Your task to perform on an android device: See recent photos Image 0: 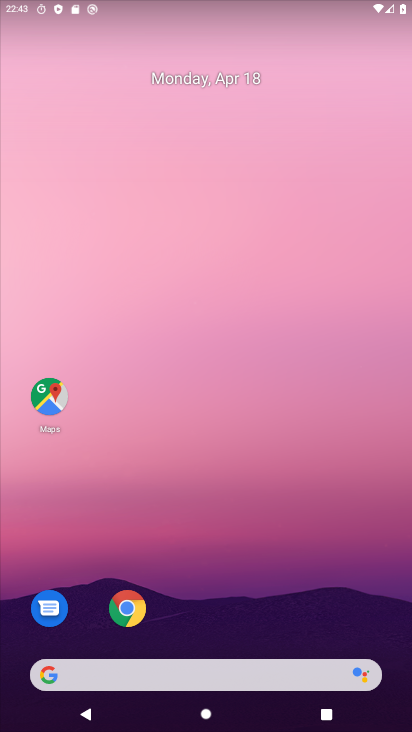
Step 0: drag from (213, 599) to (194, 166)
Your task to perform on an android device: See recent photos Image 1: 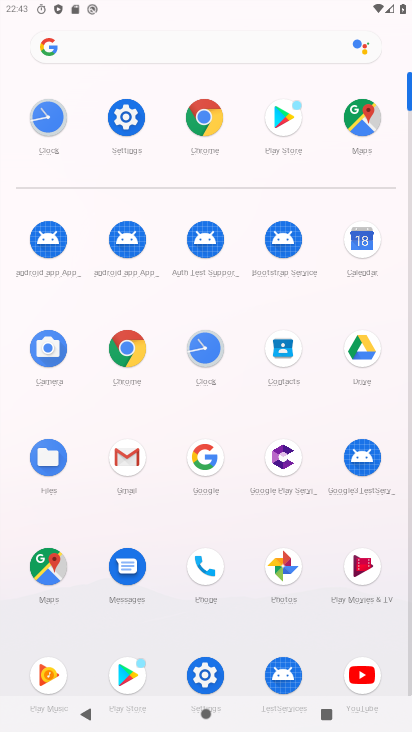
Step 1: click (285, 560)
Your task to perform on an android device: See recent photos Image 2: 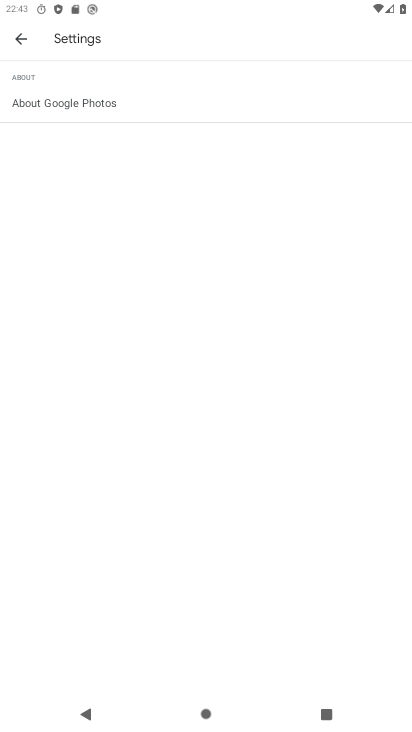
Step 2: press back button
Your task to perform on an android device: See recent photos Image 3: 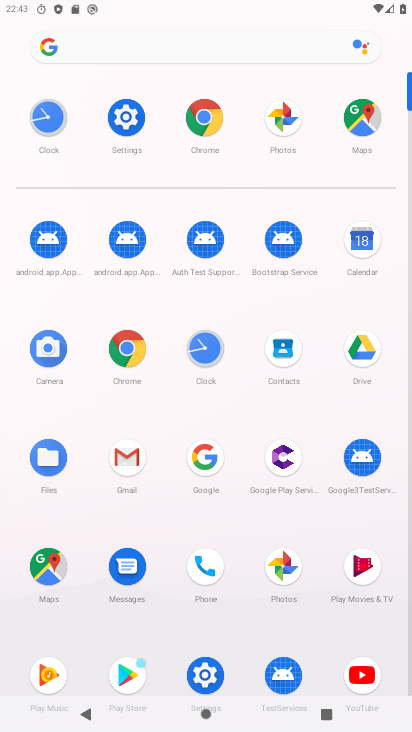
Step 3: click (282, 107)
Your task to perform on an android device: See recent photos Image 4: 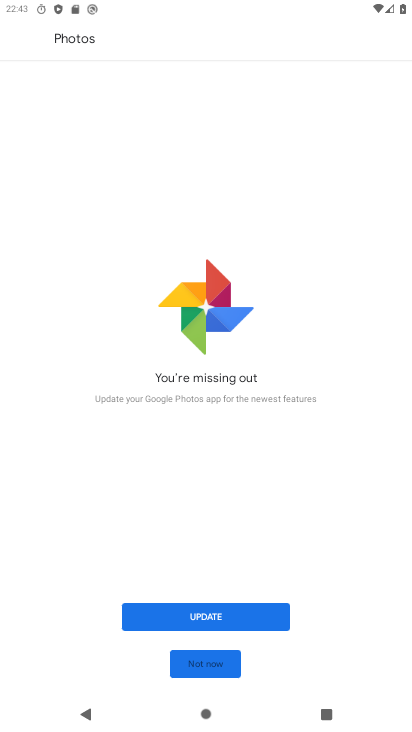
Step 4: click (208, 661)
Your task to perform on an android device: See recent photos Image 5: 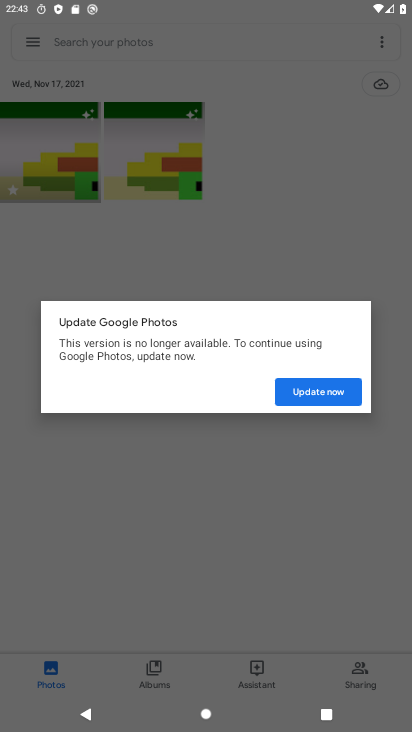
Step 5: task complete